Your task to perform on an android device: Show me productivity apps on the Play Store Image 0: 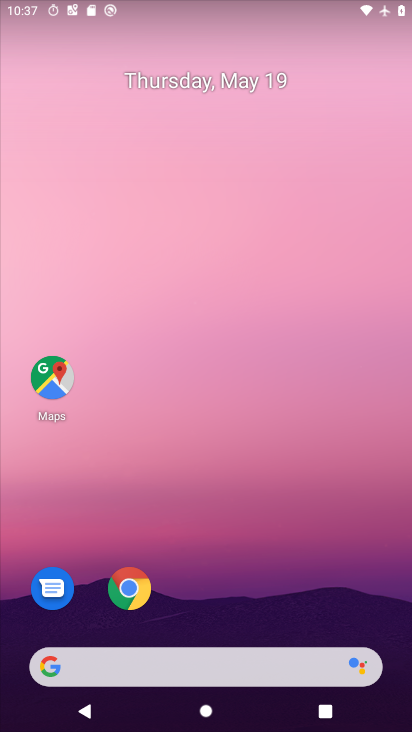
Step 0: drag from (120, 660) to (304, 226)
Your task to perform on an android device: Show me productivity apps on the Play Store Image 1: 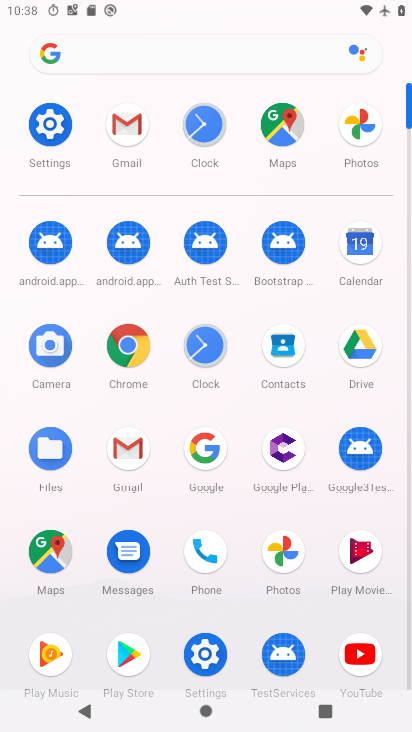
Step 1: click (134, 653)
Your task to perform on an android device: Show me productivity apps on the Play Store Image 2: 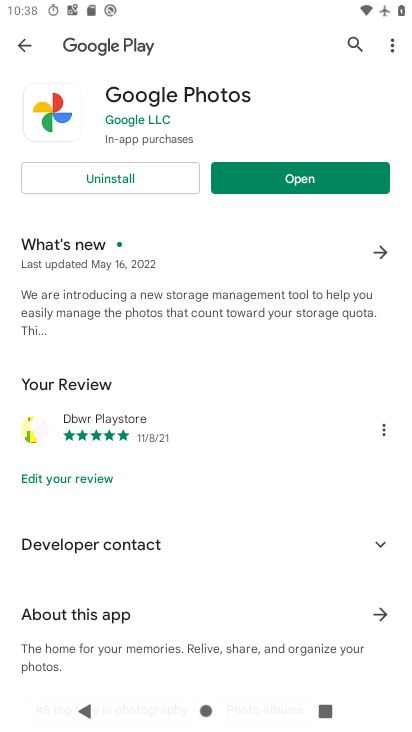
Step 2: click (21, 44)
Your task to perform on an android device: Show me productivity apps on the Play Store Image 3: 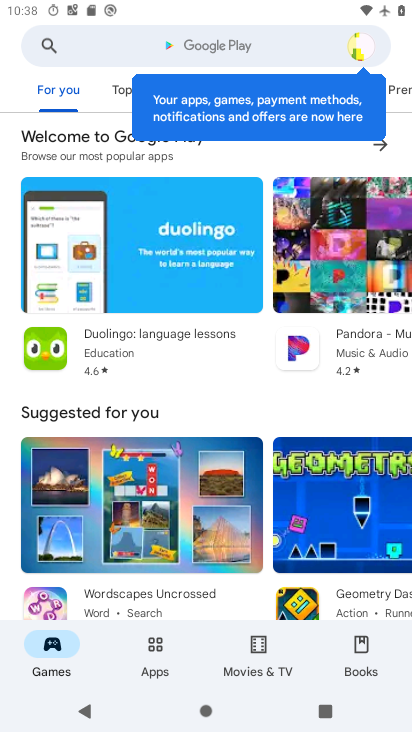
Step 3: click (156, 652)
Your task to perform on an android device: Show me productivity apps on the Play Store Image 4: 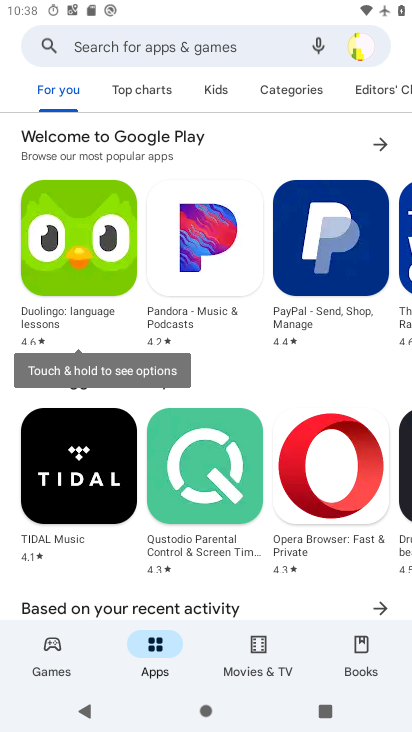
Step 4: click (304, 87)
Your task to perform on an android device: Show me productivity apps on the Play Store Image 5: 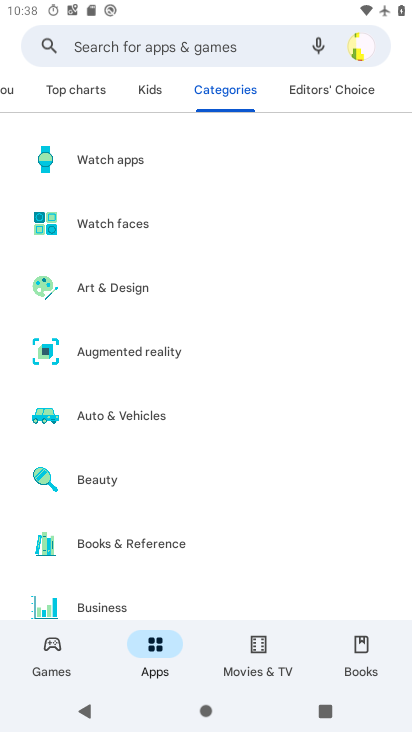
Step 5: drag from (158, 520) to (308, 218)
Your task to perform on an android device: Show me productivity apps on the Play Store Image 6: 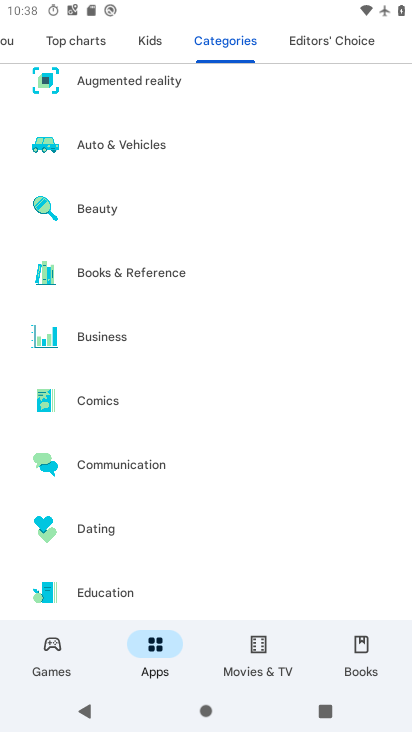
Step 6: drag from (226, 561) to (390, 116)
Your task to perform on an android device: Show me productivity apps on the Play Store Image 7: 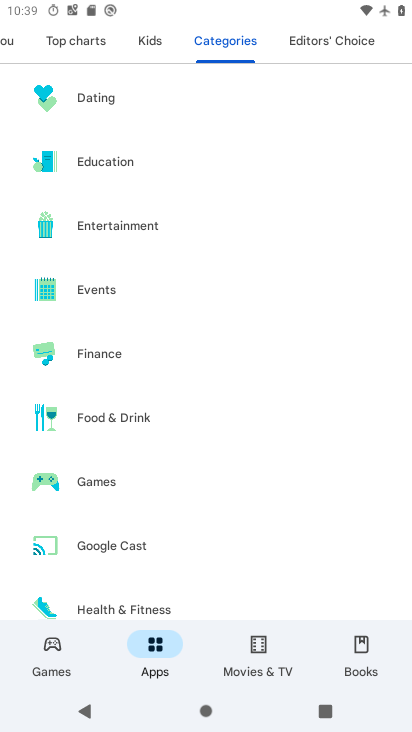
Step 7: drag from (187, 475) to (319, 151)
Your task to perform on an android device: Show me productivity apps on the Play Store Image 8: 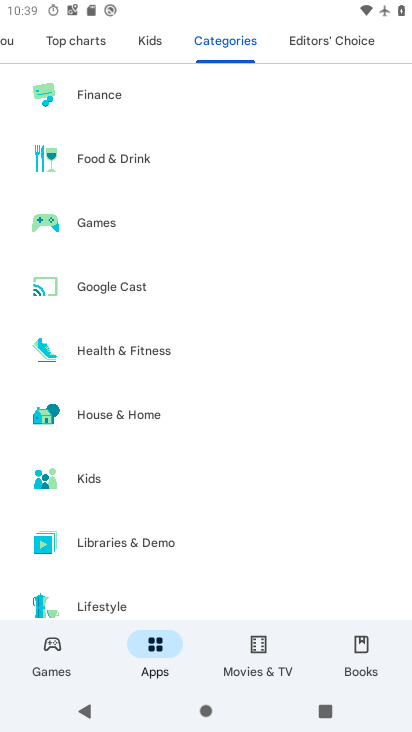
Step 8: drag from (274, 525) to (411, 134)
Your task to perform on an android device: Show me productivity apps on the Play Store Image 9: 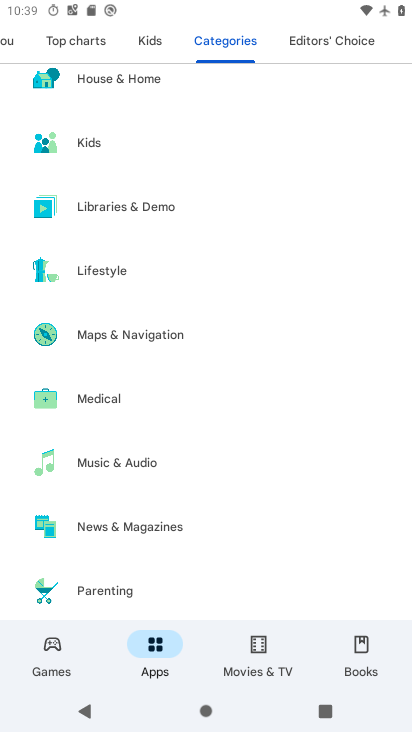
Step 9: drag from (181, 559) to (393, 82)
Your task to perform on an android device: Show me productivity apps on the Play Store Image 10: 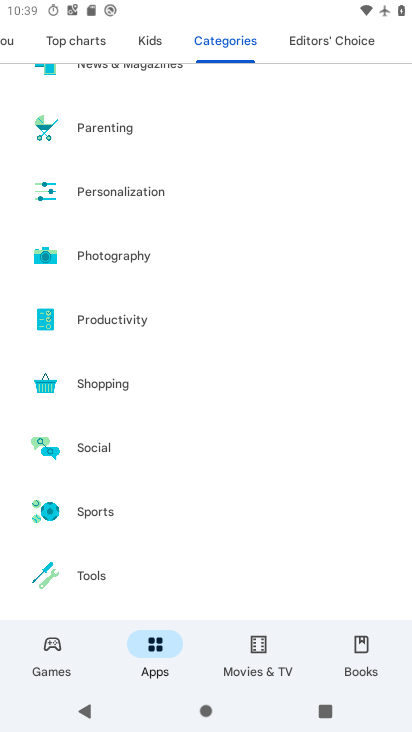
Step 10: click (126, 316)
Your task to perform on an android device: Show me productivity apps on the Play Store Image 11: 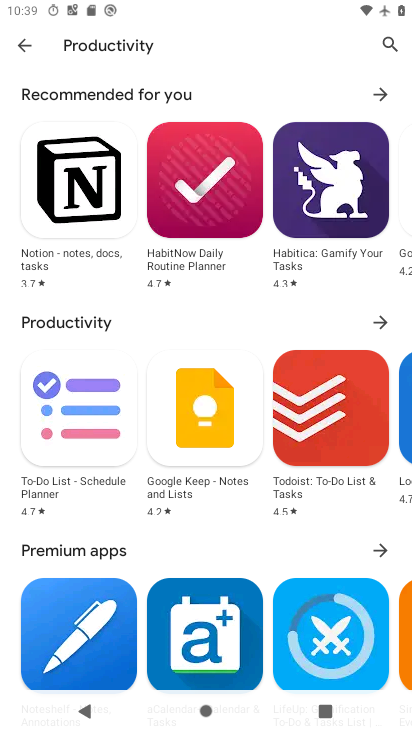
Step 11: task complete